Your task to perform on an android device: open app "Contacts" Image 0: 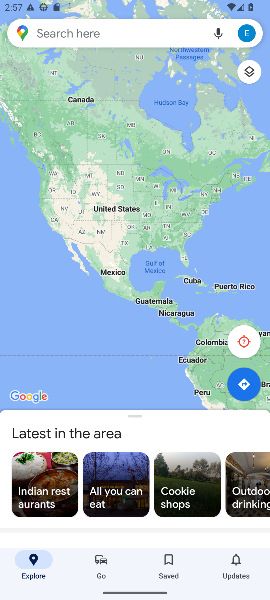
Step 0: press home button
Your task to perform on an android device: open app "Contacts" Image 1: 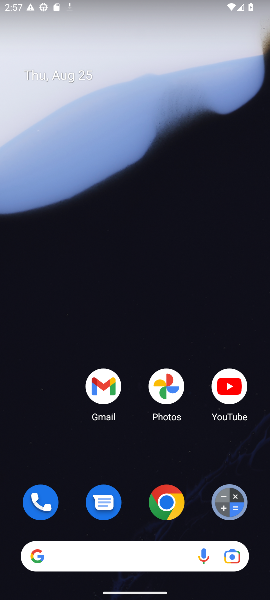
Step 1: drag from (133, 526) to (141, 119)
Your task to perform on an android device: open app "Contacts" Image 2: 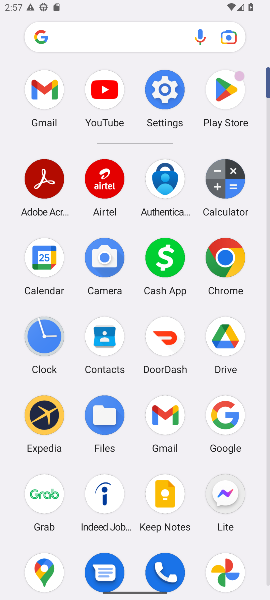
Step 2: click (103, 332)
Your task to perform on an android device: open app "Contacts" Image 3: 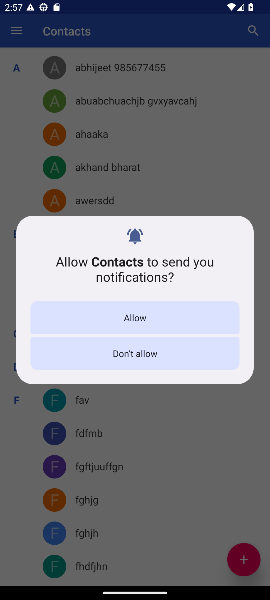
Step 3: click (170, 319)
Your task to perform on an android device: open app "Contacts" Image 4: 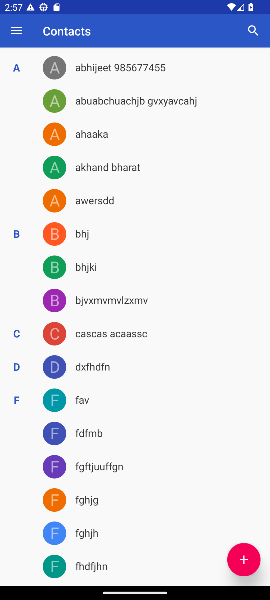
Step 4: task complete